Your task to perform on an android device: toggle data saver in the chrome app Image 0: 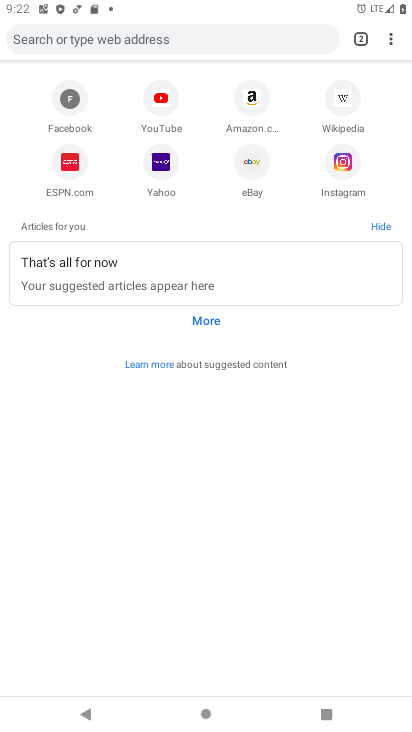
Step 0: press home button
Your task to perform on an android device: toggle data saver in the chrome app Image 1: 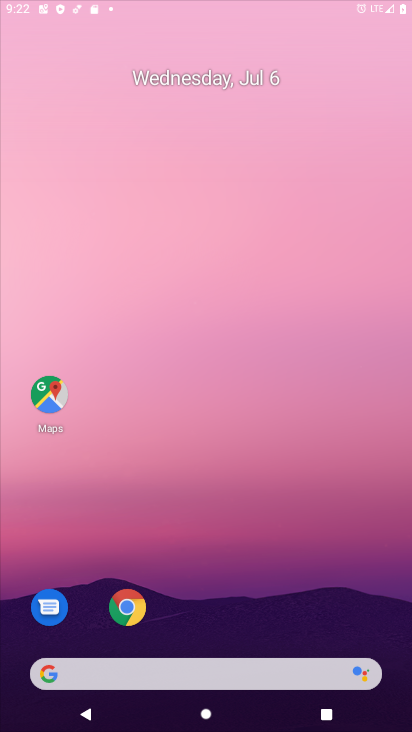
Step 1: drag from (389, 654) to (255, 40)
Your task to perform on an android device: toggle data saver in the chrome app Image 2: 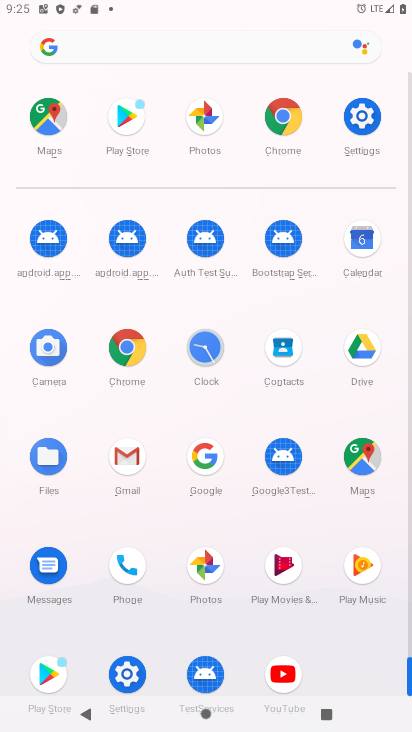
Step 2: click (296, 118)
Your task to perform on an android device: toggle data saver in the chrome app Image 3: 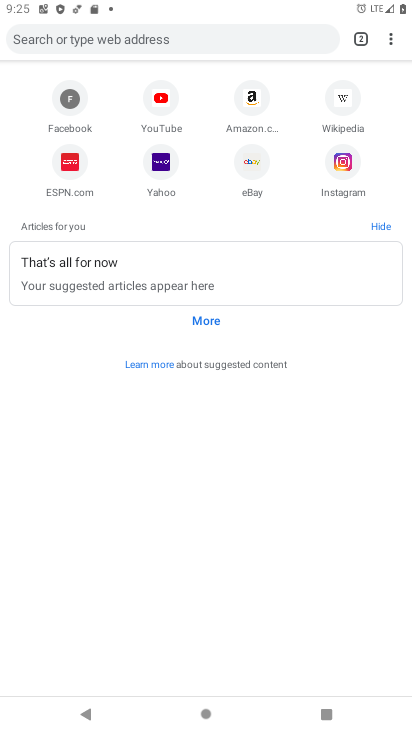
Step 3: click (389, 35)
Your task to perform on an android device: toggle data saver in the chrome app Image 4: 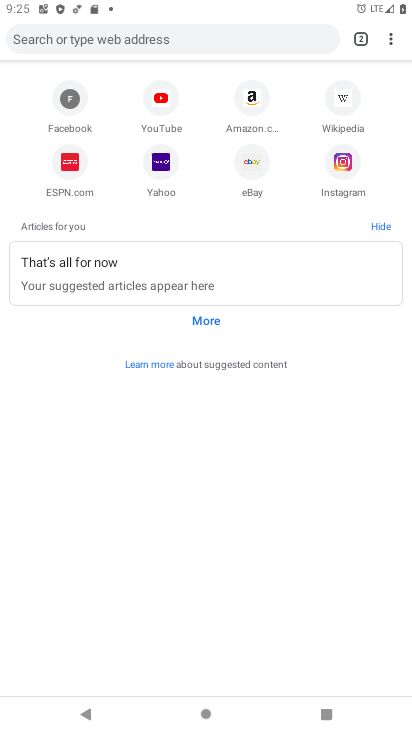
Step 4: click (395, 33)
Your task to perform on an android device: toggle data saver in the chrome app Image 5: 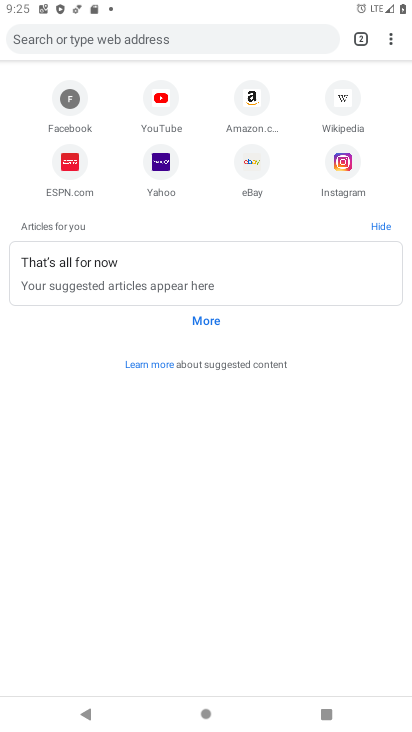
Step 5: click (389, 32)
Your task to perform on an android device: toggle data saver in the chrome app Image 6: 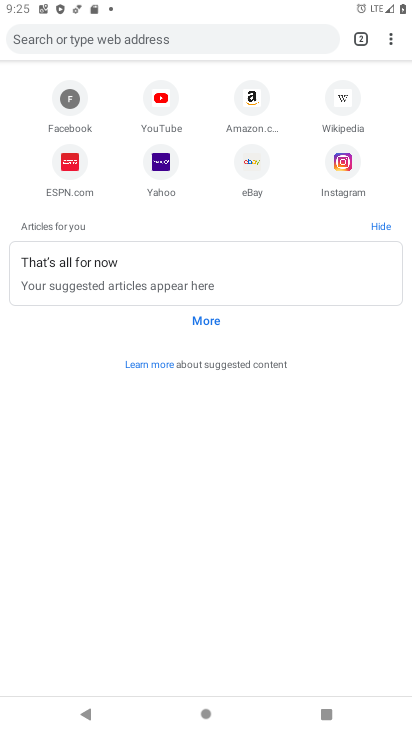
Step 6: click (389, 32)
Your task to perform on an android device: toggle data saver in the chrome app Image 7: 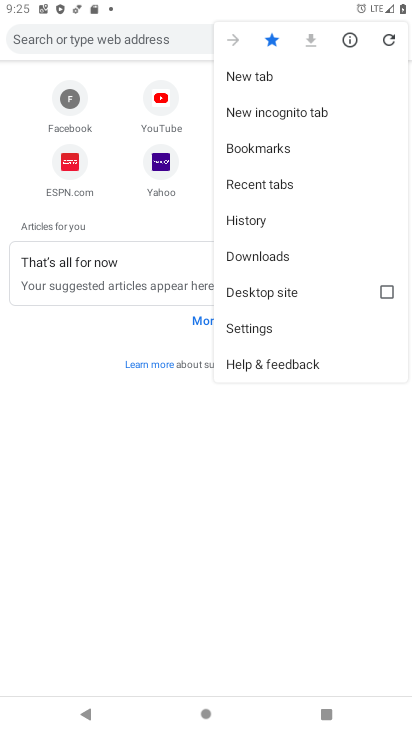
Step 7: click (261, 330)
Your task to perform on an android device: toggle data saver in the chrome app Image 8: 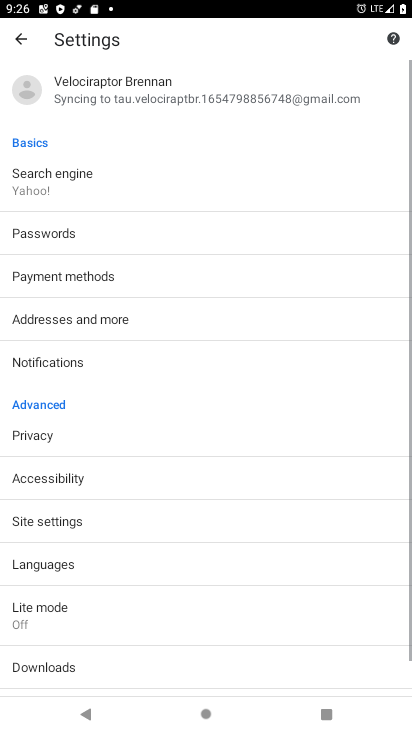
Step 8: click (38, 618)
Your task to perform on an android device: toggle data saver in the chrome app Image 9: 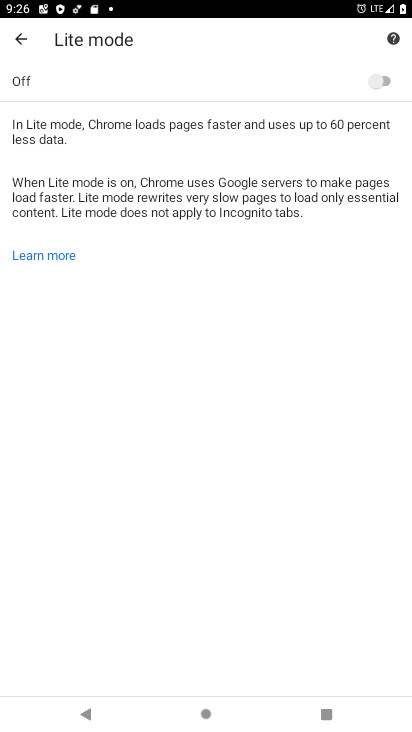
Step 9: click (381, 82)
Your task to perform on an android device: toggle data saver in the chrome app Image 10: 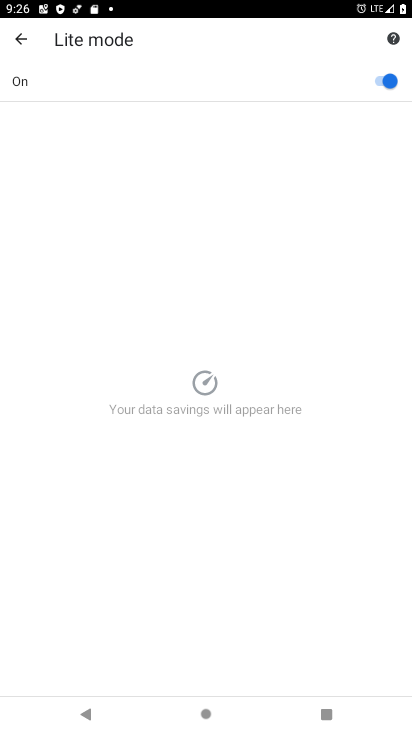
Step 10: task complete